Your task to perform on an android device: turn on translation in the chrome app Image 0: 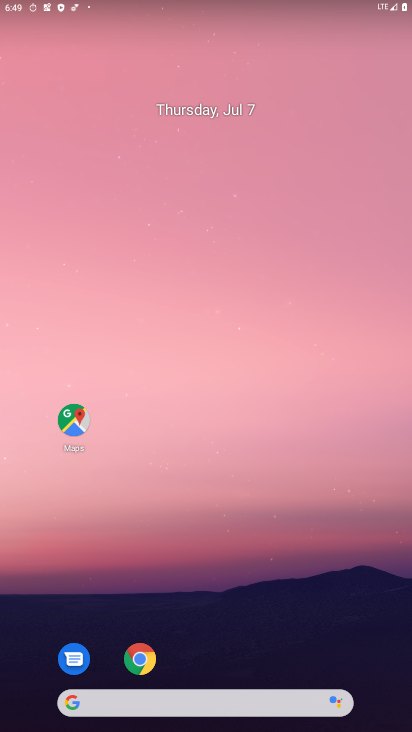
Step 0: drag from (381, 675) to (182, 0)
Your task to perform on an android device: turn on translation in the chrome app Image 1: 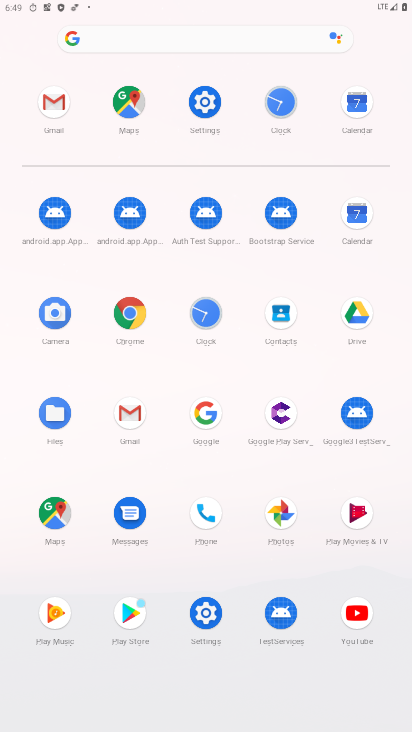
Step 1: click (111, 318)
Your task to perform on an android device: turn on translation in the chrome app Image 2: 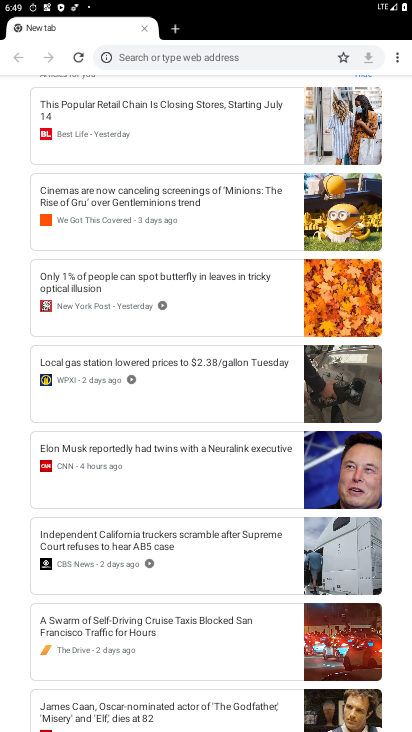
Step 2: click (397, 52)
Your task to perform on an android device: turn on translation in the chrome app Image 3: 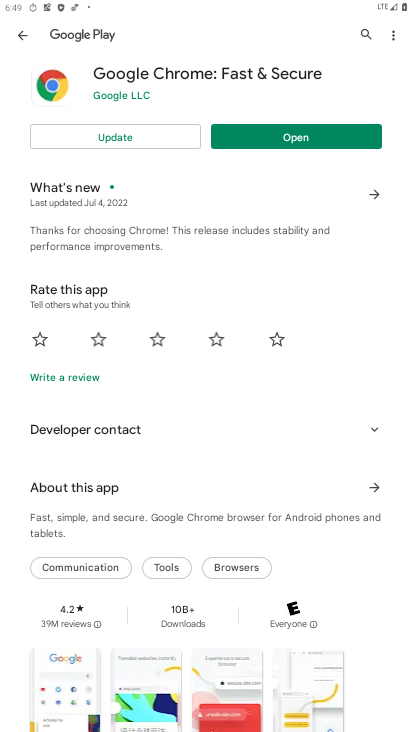
Step 3: click (114, 145)
Your task to perform on an android device: turn on translation in the chrome app Image 4: 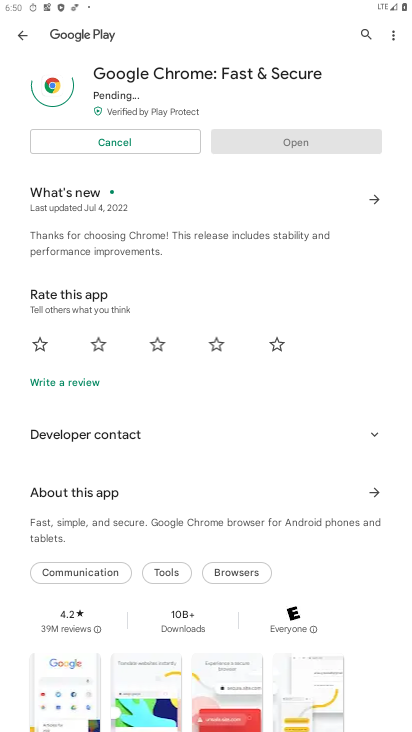
Step 4: task complete